Your task to perform on an android device: turn off location Image 0: 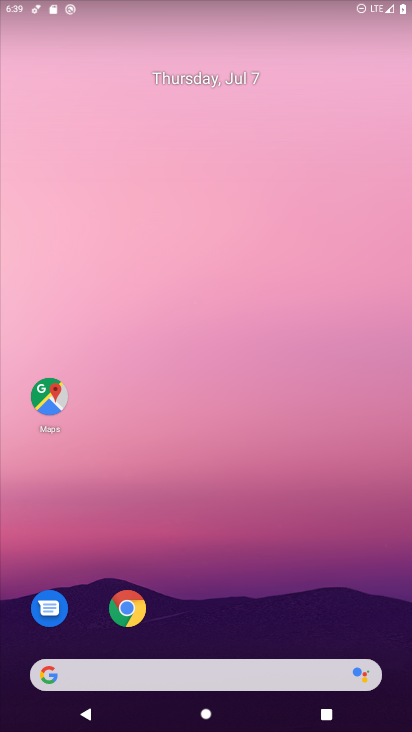
Step 0: drag from (300, 522) to (271, 7)
Your task to perform on an android device: turn off location Image 1: 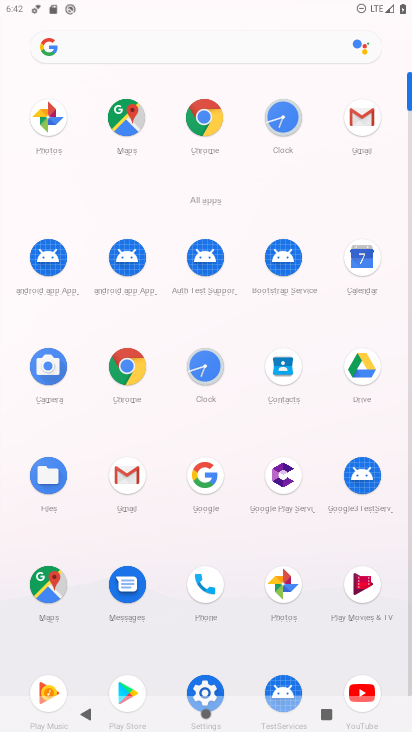
Step 1: click (214, 680)
Your task to perform on an android device: turn off location Image 2: 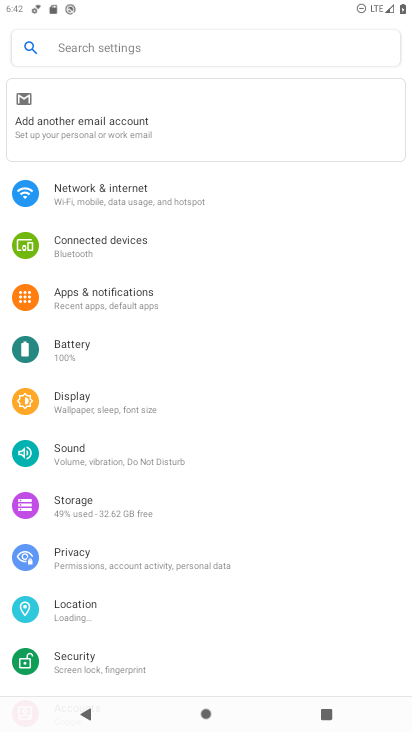
Step 2: click (107, 616)
Your task to perform on an android device: turn off location Image 3: 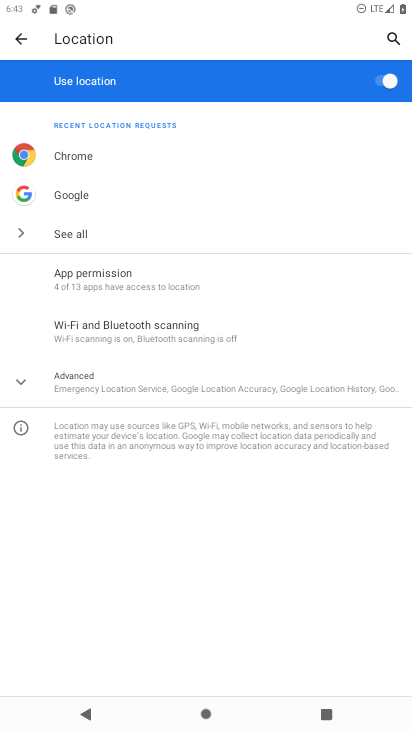
Step 3: click (203, 82)
Your task to perform on an android device: turn off location Image 4: 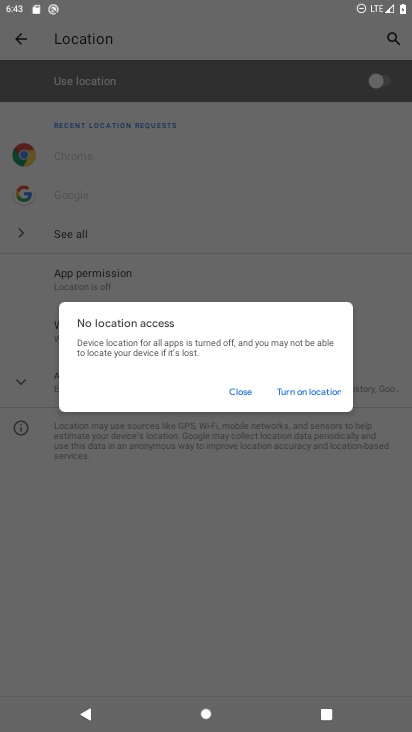
Step 4: task complete